Your task to perform on an android device: Go to Google maps Image 0: 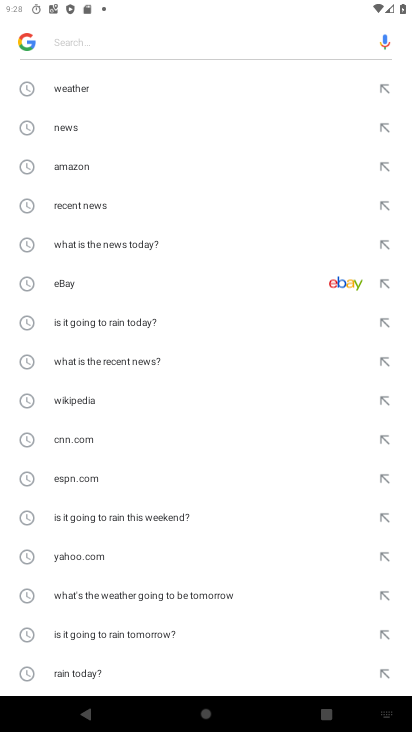
Step 0: press home button
Your task to perform on an android device: Go to Google maps Image 1: 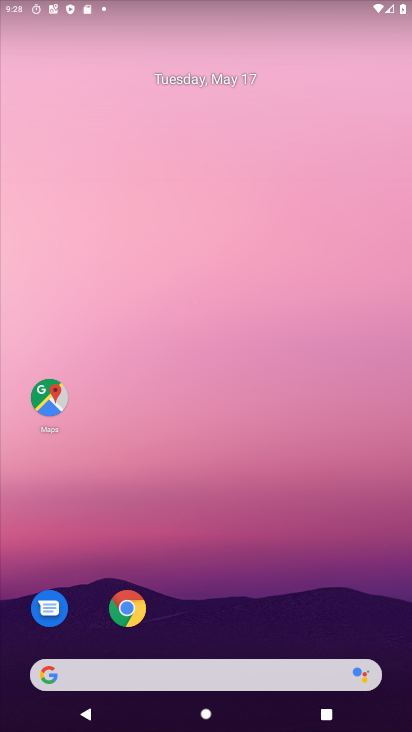
Step 1: drag from (350, 584) to (302, 3)
Your task to perform on an android device: Go to Google maps Image 2: 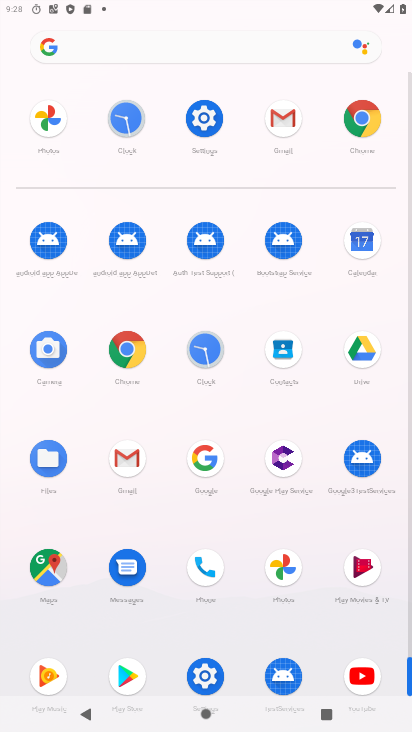
Step 2: click (42, 580)
Your task to perform on an android device: Go to Google maps Image 3: 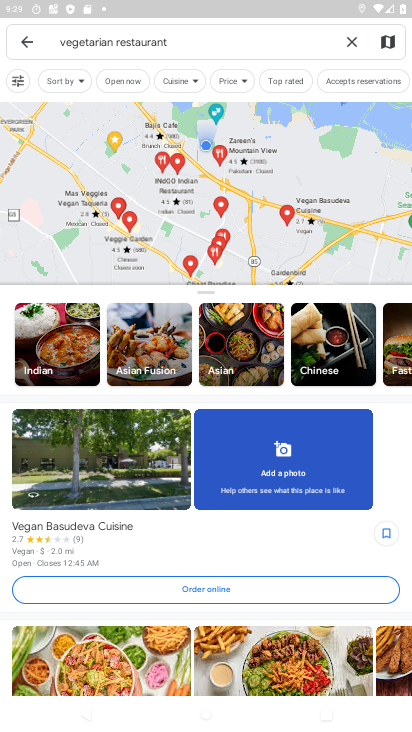
Step 3: task complete